Your task to perform on an android device: Open accessibility settings Image 0: 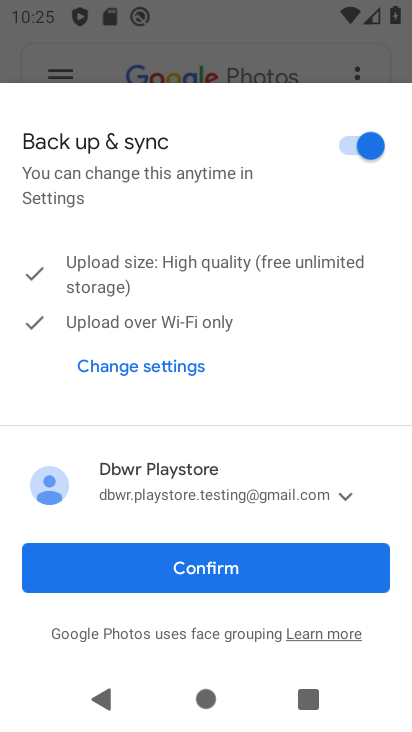
Step 0: press home button
Your task to perform on an android device: Open accessibility settings Image 1: 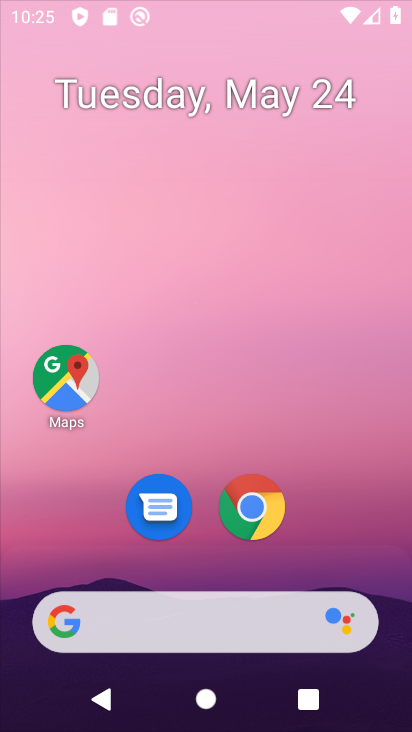
Step 1: drag from (271, 541) to (278, 0)
Your task to perform on an android device: Open accessibility settings Image 2: 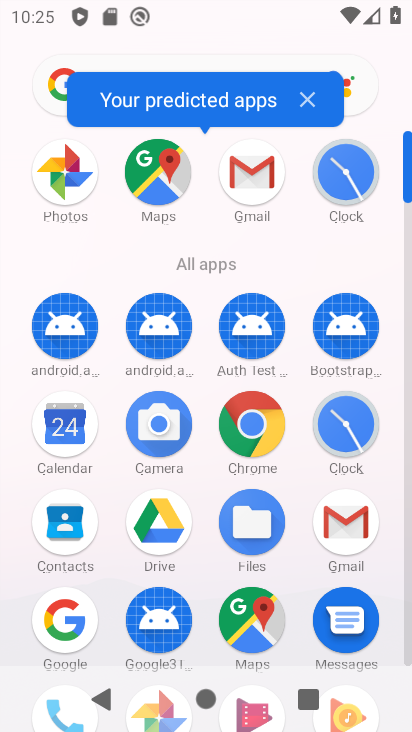
Step 2: drag from (294, 689) to (330, 177)
Your task to perform on an android device: Open accessibility settings Image 3: 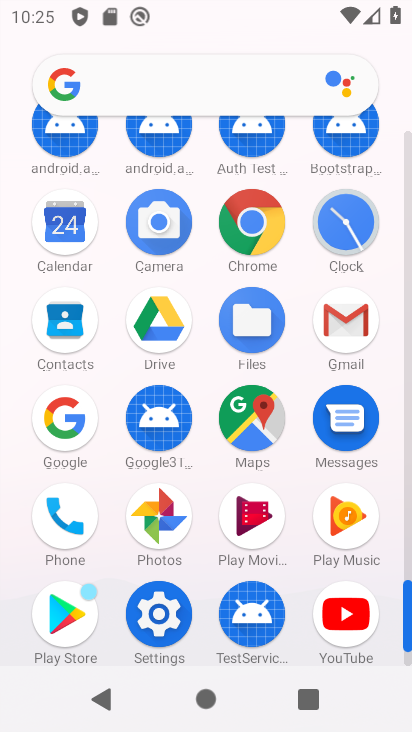
Step 3: click (159, 617)
Your task to perform on an android device: Open accessibility settings Image 4: 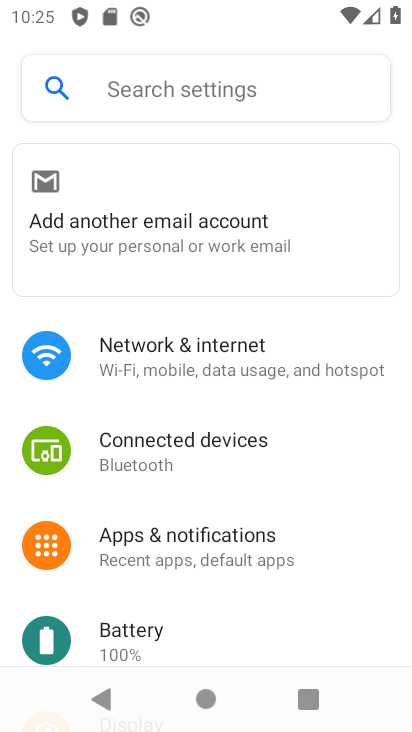
Step 4: drag from (225, 608) to (298, 23)
Your task to perform on an android device: Open accessibility settings Image 5: 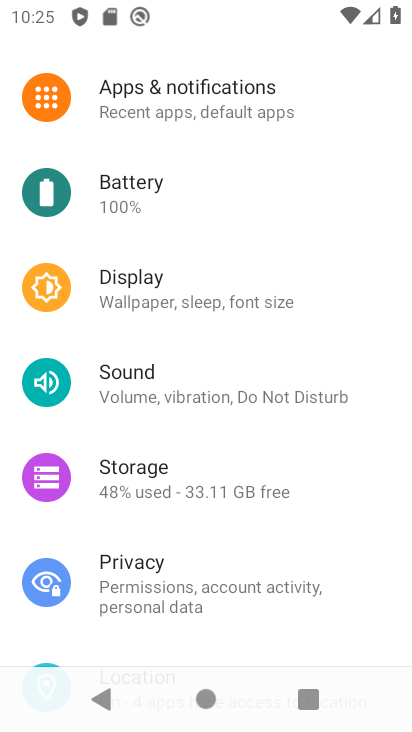
Step 5: drag from (163, 633) to (201, 99)
Your task to perform on an android device: Open accessibility settings Image 6: 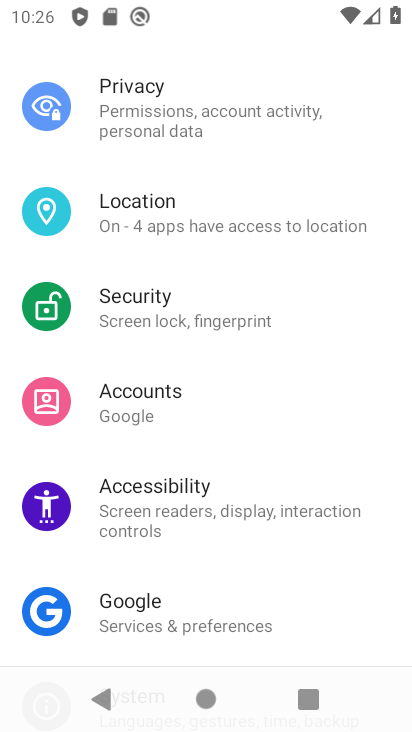
Step 6: click (216, 489)
Your task to perform on an android device: Open accessibility settings Image 7: 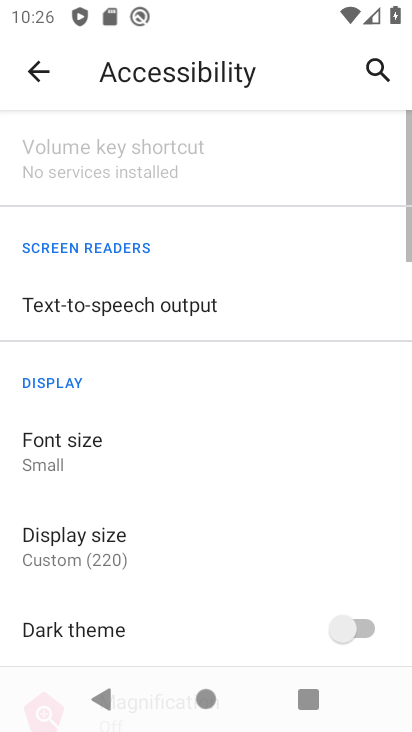
Step 7: task complete